Your task to perform on an android device: change alarm snooze length Image 0: 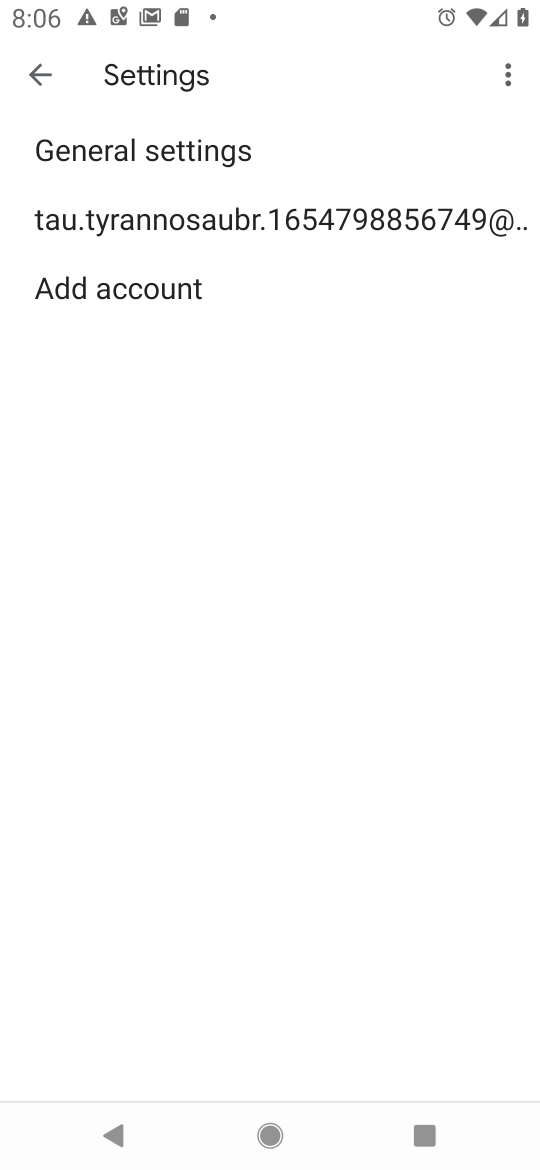
Step 0: press home button
Your task to perform on an android device: change alarm snooze length Image 1: 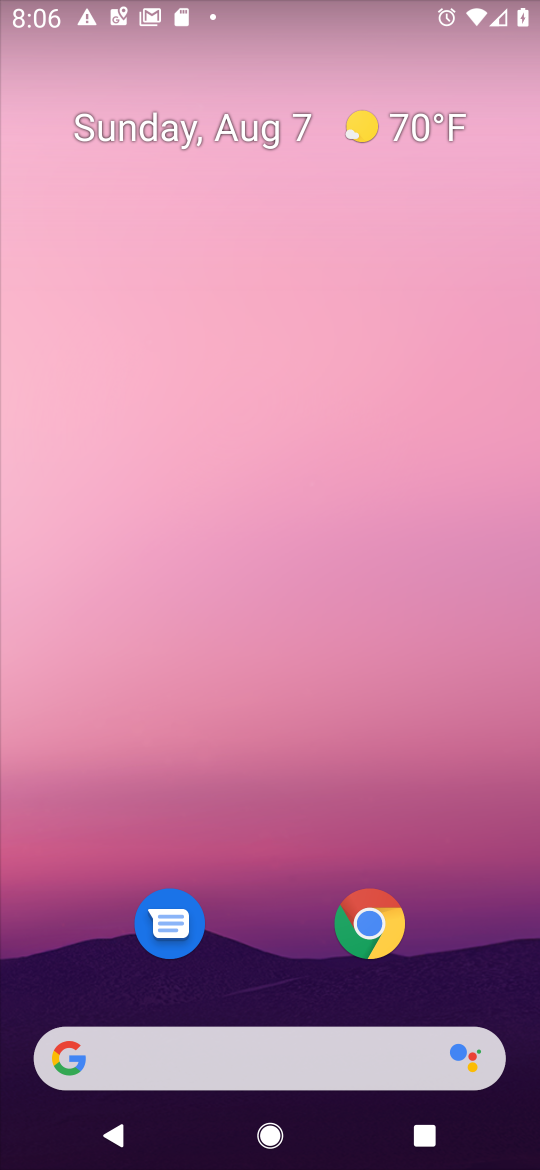
Step 1: drag from (482, 821) to (345, 67)
Your task to perform on an android device: change alarm snooze length Image 2: 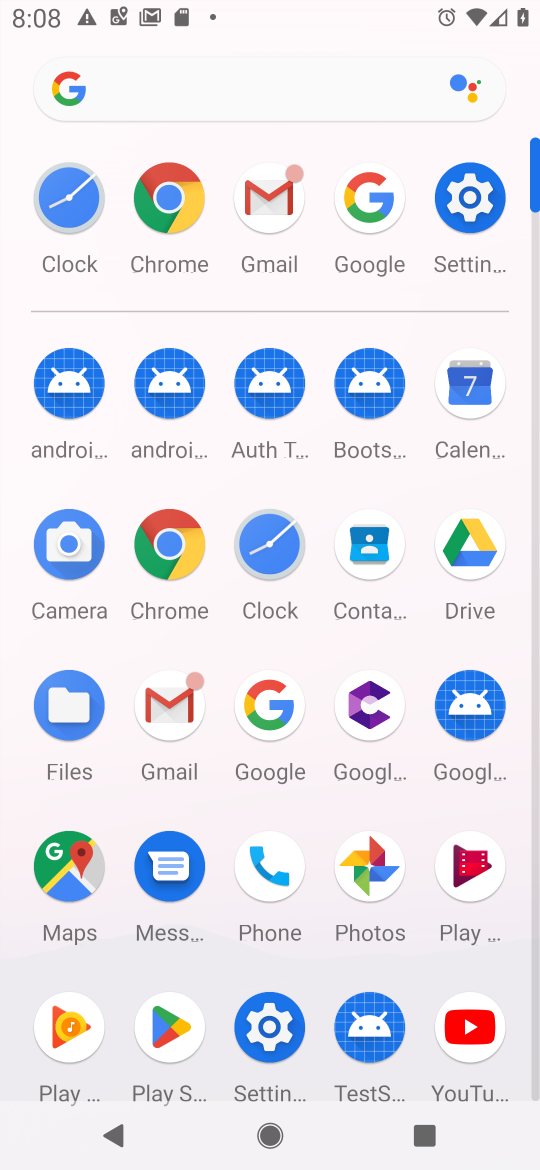
Step 2: click (279, 551)
Your task to perform on an android device: change alarm snooze length Image 3: 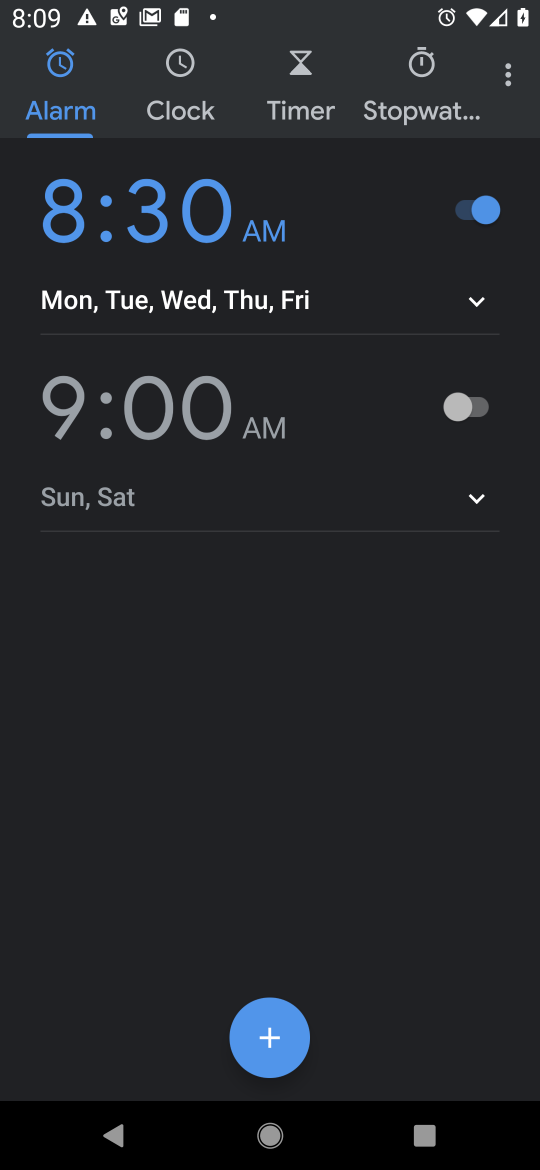
Step 3: click (510, 61)
Your task to perform on an android device: change alarm snooze length Image 4: 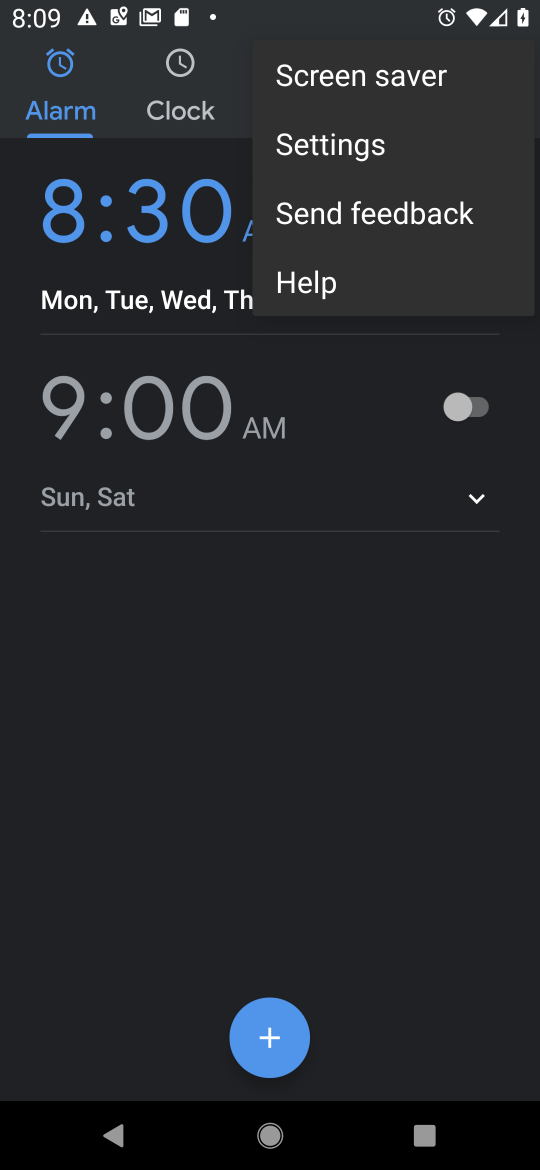
Step 4: click (348, 156)
Your task to perform on an android device: change alarm snooze length Image 5: 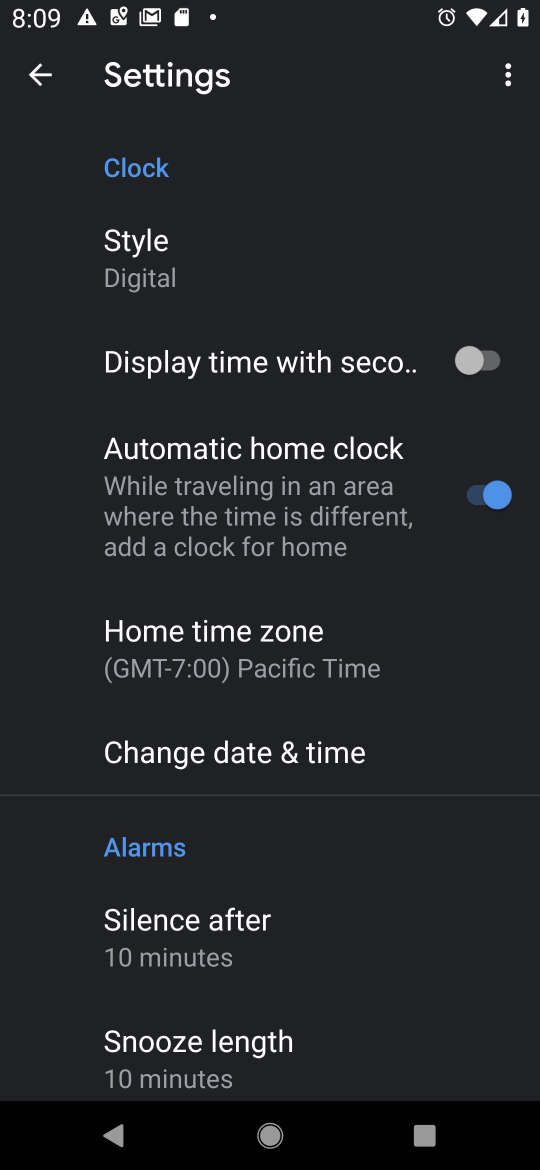
Step 5: click (240, 1044)
Your task to perform on an android device: change alarm snooze length Image 6: 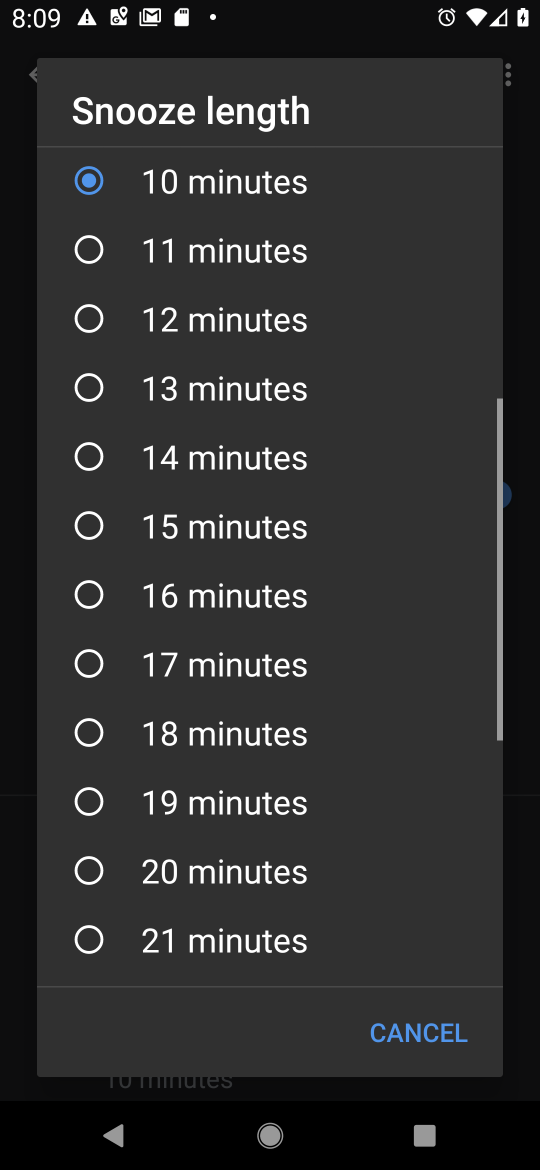
Step 6: click (177, 531)
Your task to perform on an android device: change alarm snooze length Image 7: 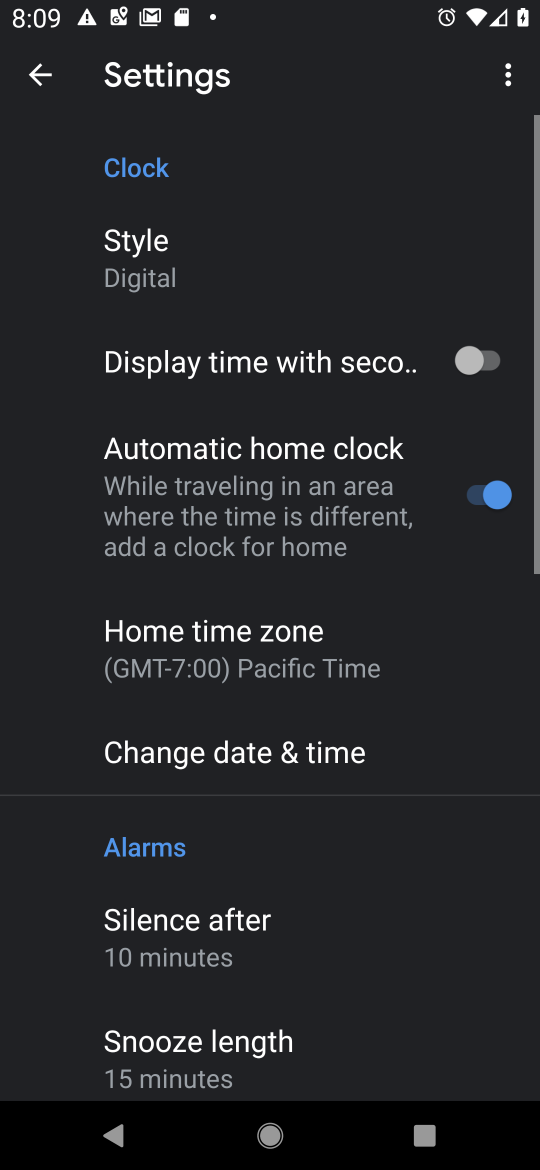
Step 7: task complete